Your task to perform on an android device: toggle notifications settings in the gmail app Image 0: 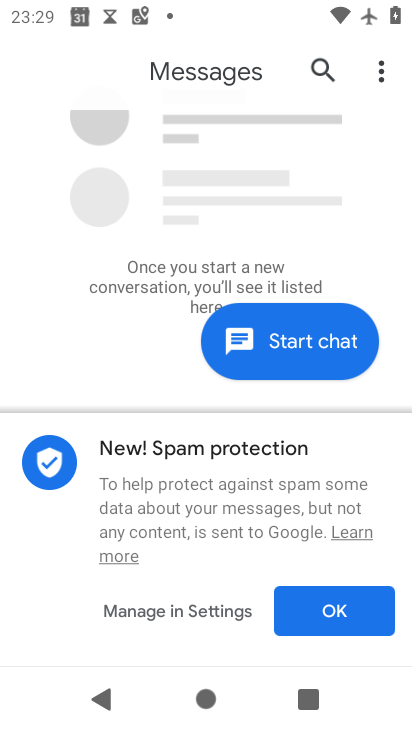
Step 0: press home button
Your task to perform on an android device: toggle notifications settings in the gmail app Image 1: 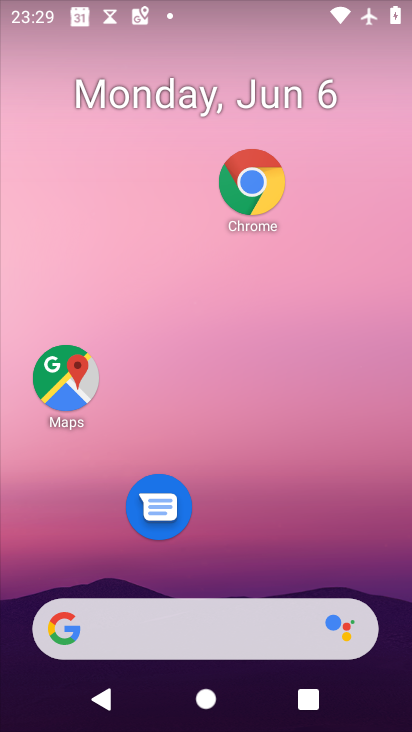
Step 1: drag from (260, 562) to (266, 255)
Your task to perform on an android device: toggle notifications settings in the gmail app Image 2: 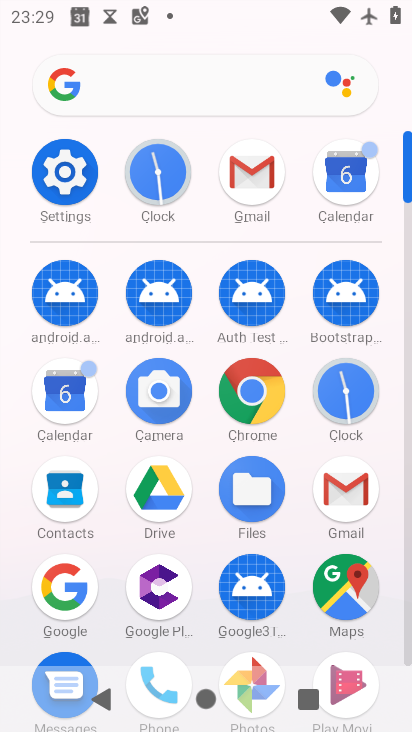
Step 2: click (355, 486)
Your task to perform on an android device: toggle notifications settings in the gmail app Image 3: 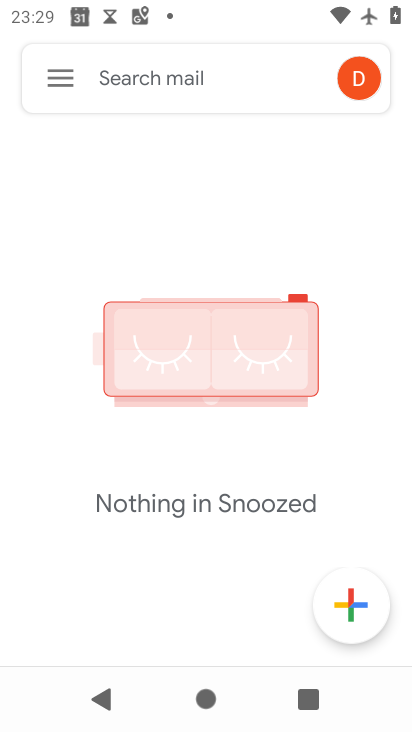
Step 3: click (52, 67)
Your task to perform on an android device: toggle notifications settings in the gmail app Image 4: 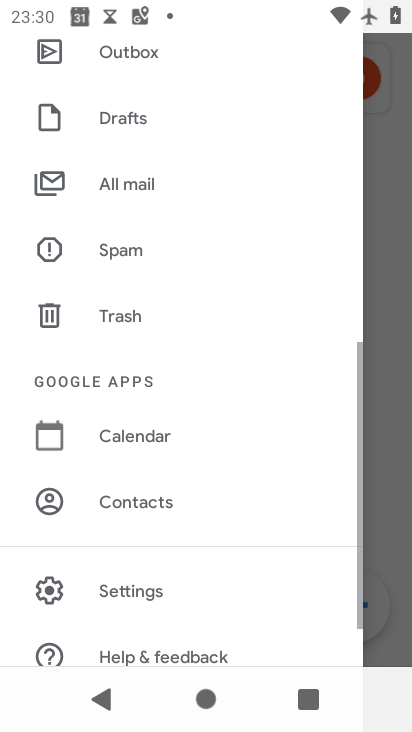
Step 4: click (151, 574)
Your task to perform on an android device: toggle notifications settings in the gmail app Image 5: 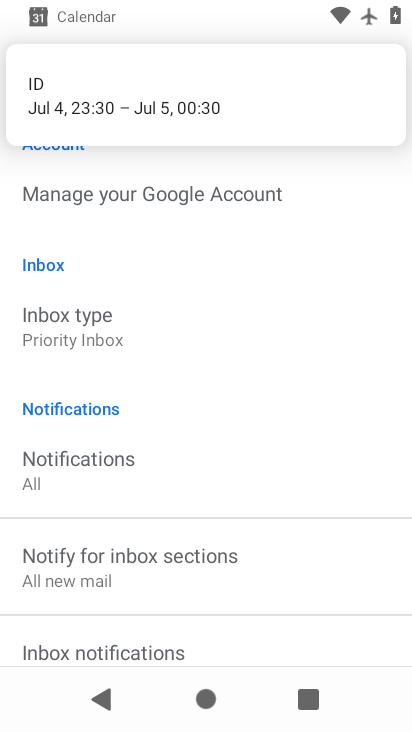
Step 5: click (91, 479)
Your task to perform on an android device: toggle notifications settings in the gmail app Image 6: 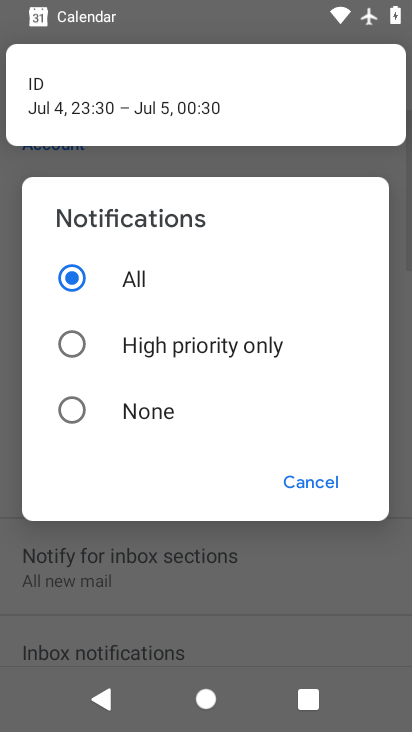
Step 6: click (113, 409)
Your task to perform on an android device: toggle notifications settings in the gmail app Image 7: 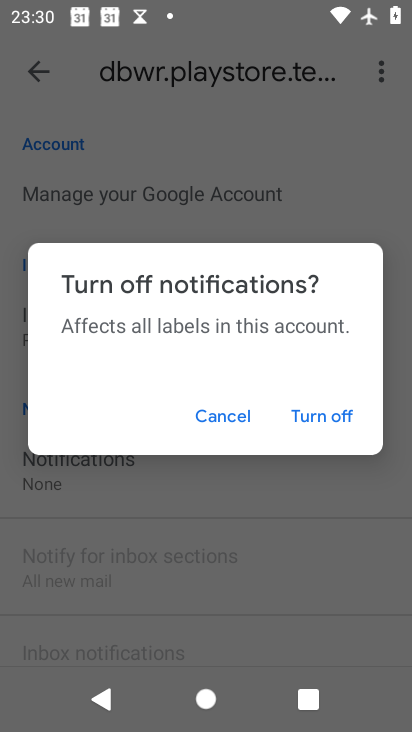
Step 7: click (292, 427)
Your task to perform on an android device: toggle notifications settings in the gmail app Image 8: 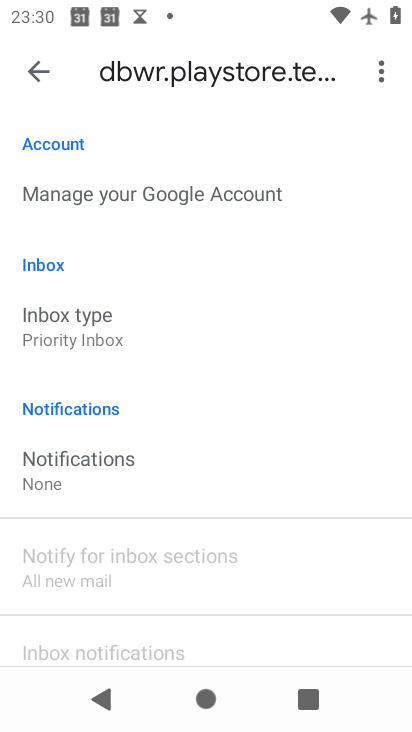
Step 8: task complete